Your task to perform on an android device: remove spam from my inbox in the gmail app Image 0: 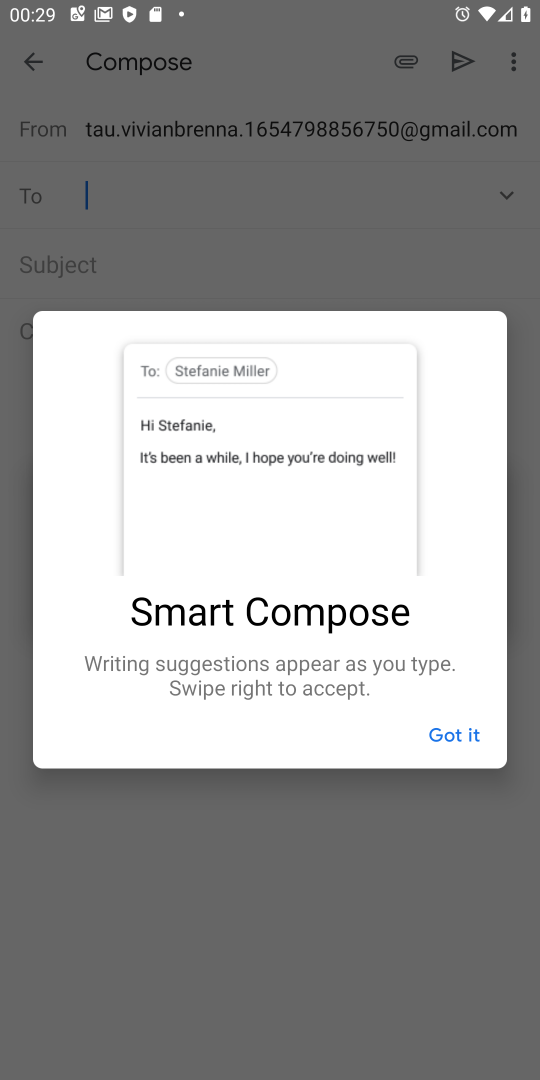
Step 0: press home button
Your task to perform on an android device: remove spam from my inbox in the gmail app Image 1: 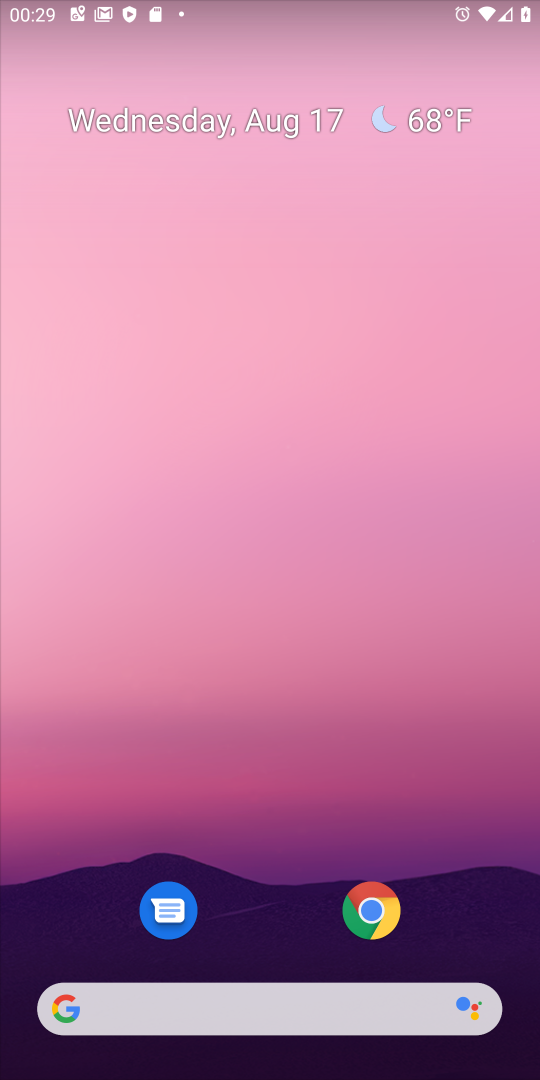
Step 1: drag from (257, 699) to (366, 0)
Your task to perform on an android device: remove spam from my inbox in the gmail app Image 2: 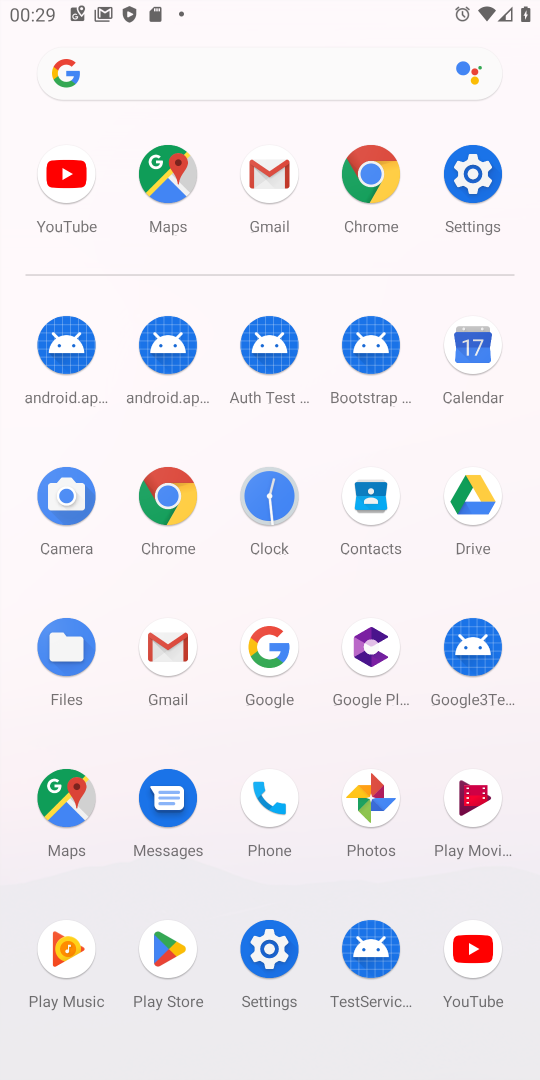
Step 2: click (167, 634)
Your task to perform on an android device: remove spam from my inbox in the gmail app Image 3: 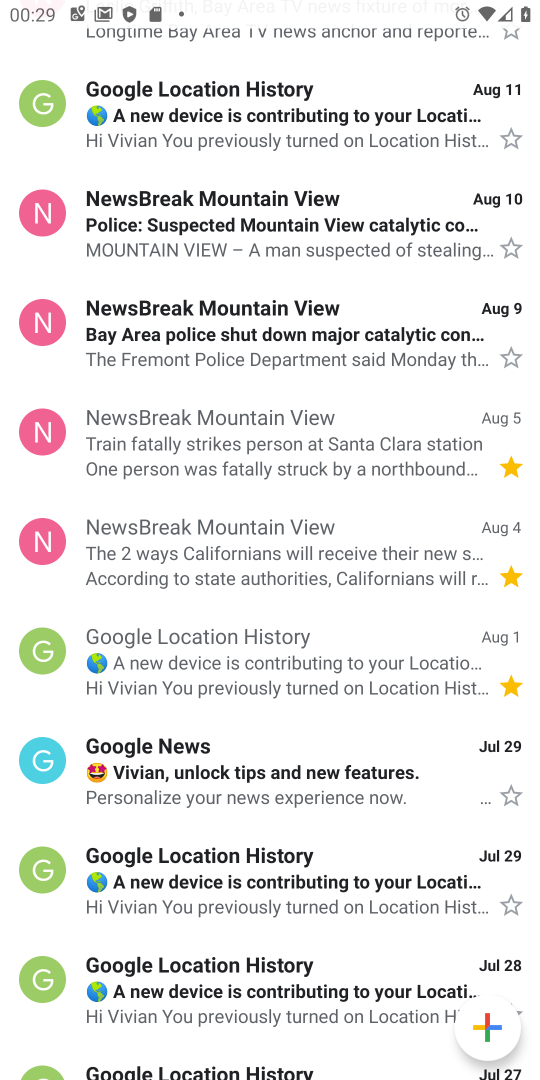
Step 3: drag from (276, 142) to (318, 948)
Your task to perform on an android device: remove spam from my inbox in the gmail app Image 4: 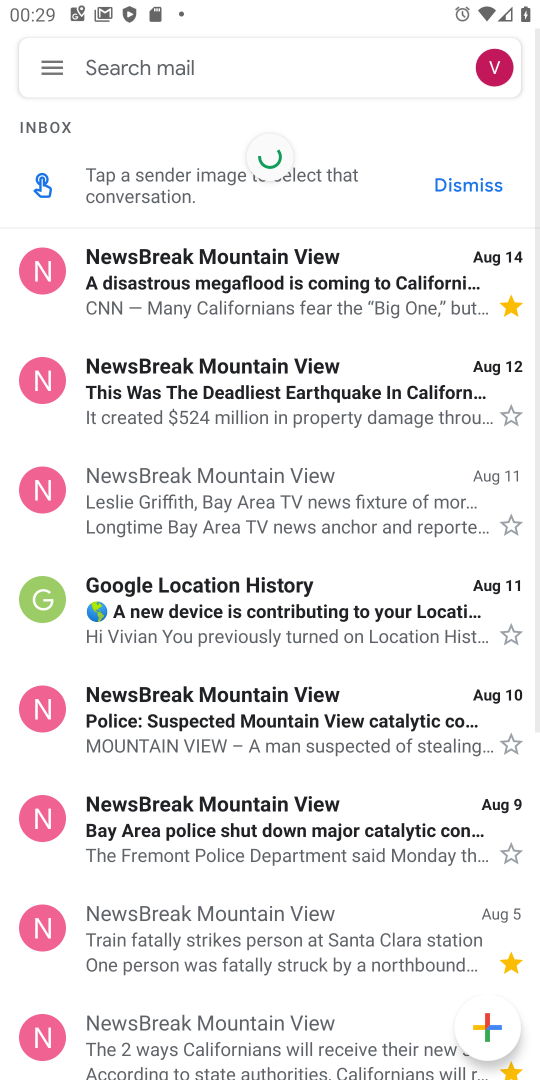
Step 4: click (52, 41)
Your task to perform on an android device: remove spam from my inbox in the gmail app Image 5: 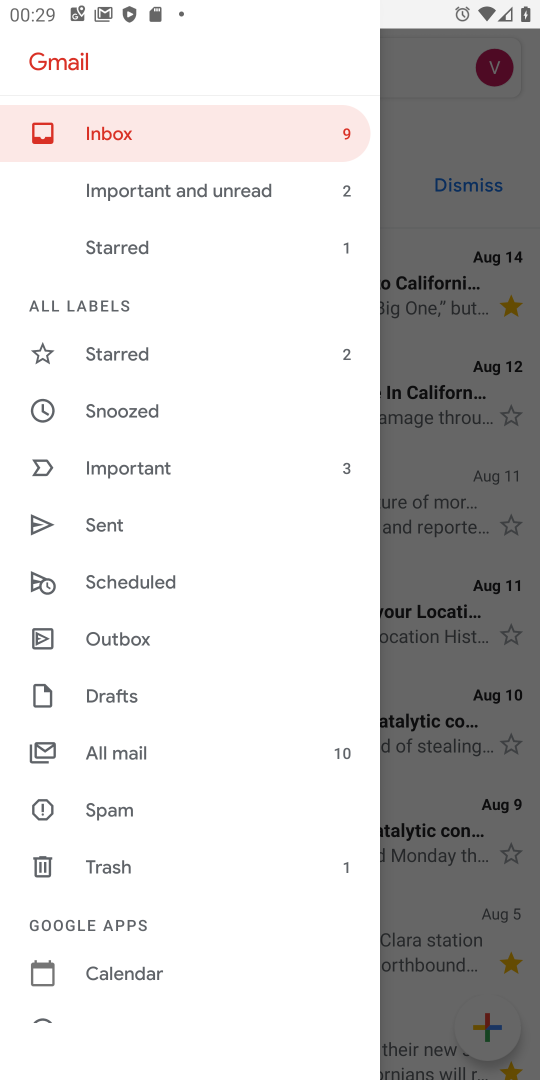
Step 5: click (492, 435)
Your task to perform on an android device: remove spam from my inbox in the gmail app Image 6: 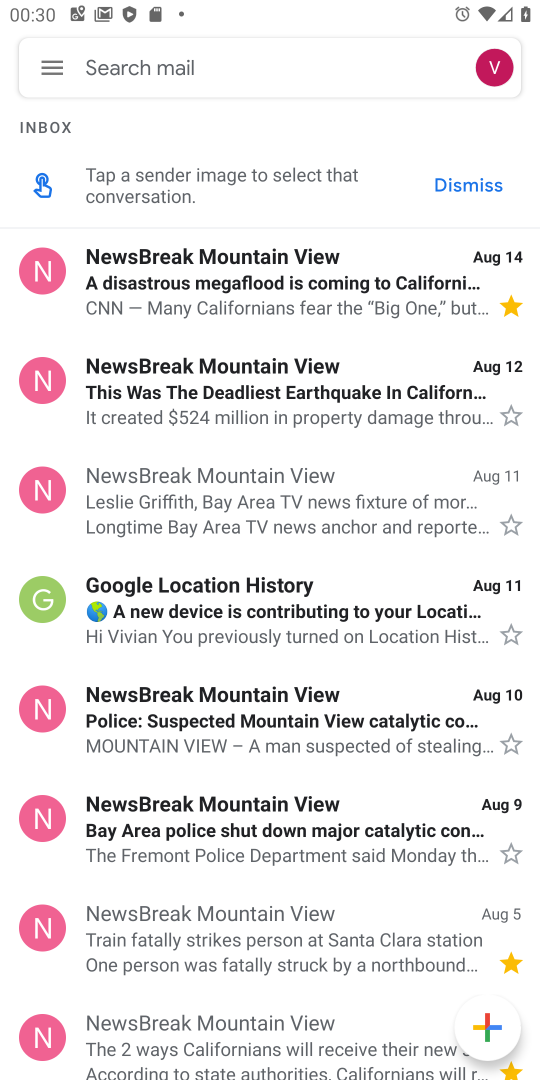
Step 6: task complete